Your task to perform on an android device: uninstall "Viber Messenger" Image 0: 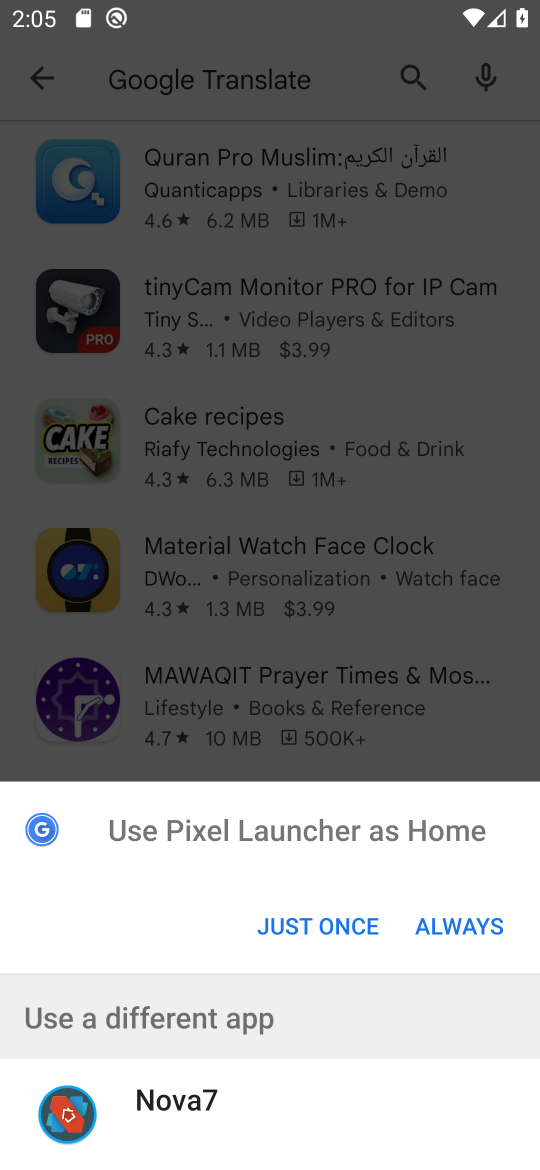
Step 0: click (306, 923)
Your task to perform on an android device: uninstall "Viber Messenger" Image 1: 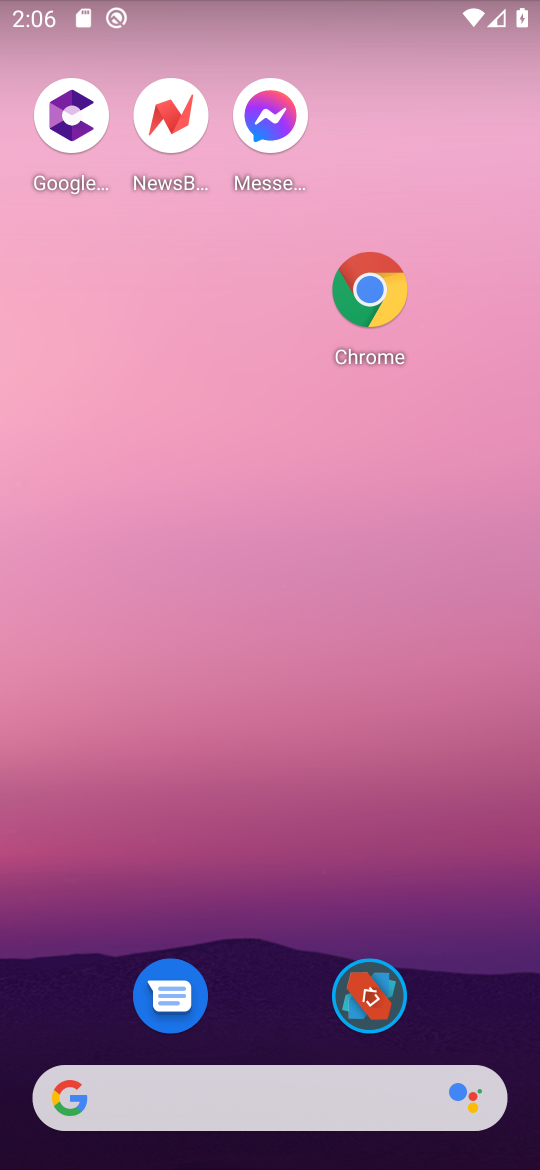
Step 1: drag from (361, 1032) to (376, 250)
Your task to perform on an android device: uninstall "Viber Messenger" Image 2: 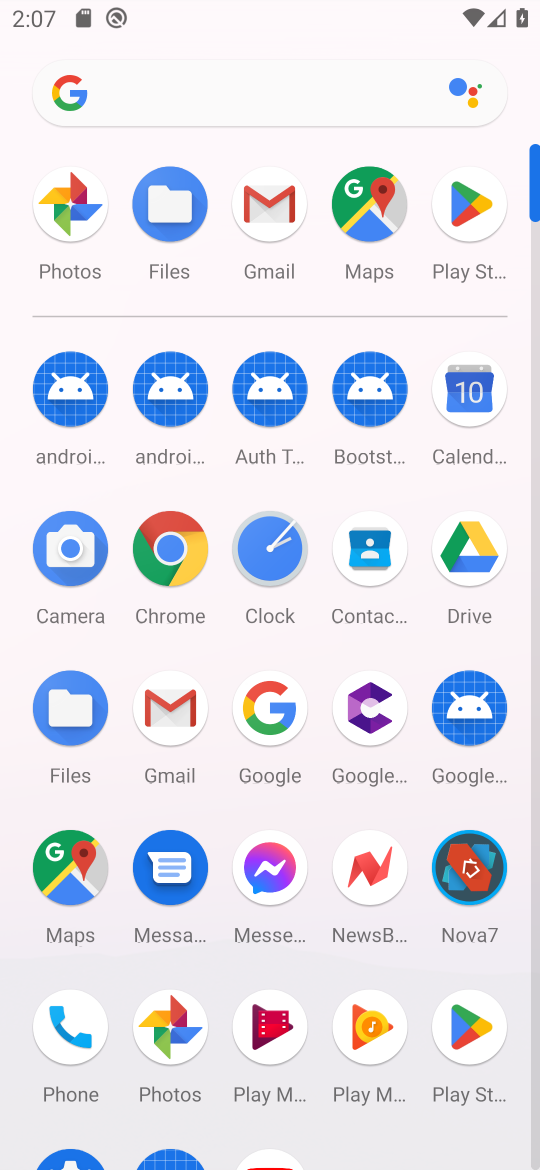
Step 2: click (478, 203)
Your task to perform on an android device: uninstall "Viber Messenger" Image 3: 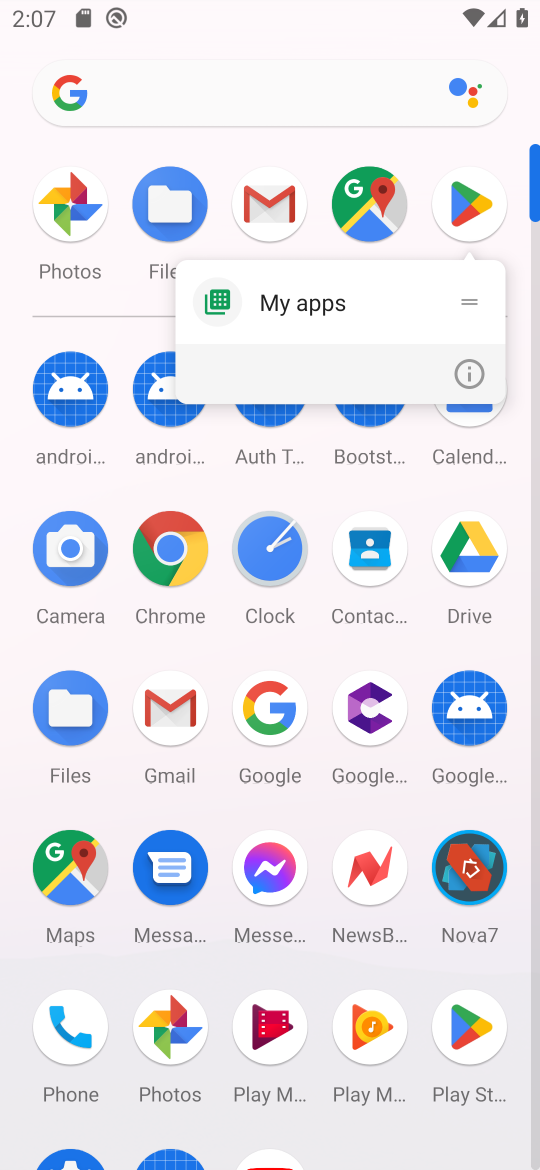
Step 3: click (478, 203)
Your task to perform on an android device: uninstall "Viber Messenger" Image 4: 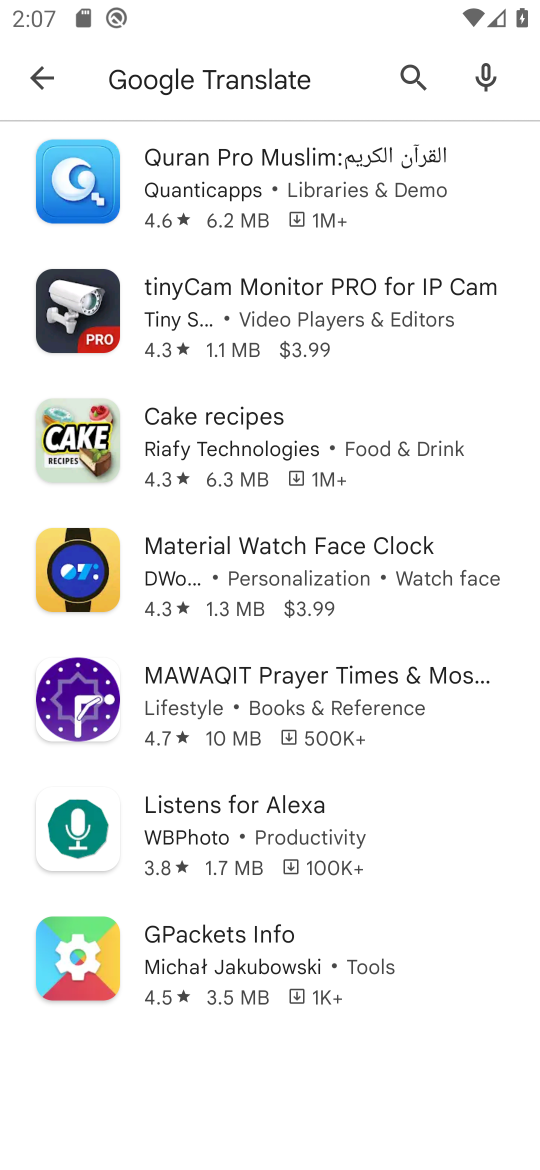
Step 4: press back button
Your task to perform on an android device: uninstall "Viber Messenger" Image 5: 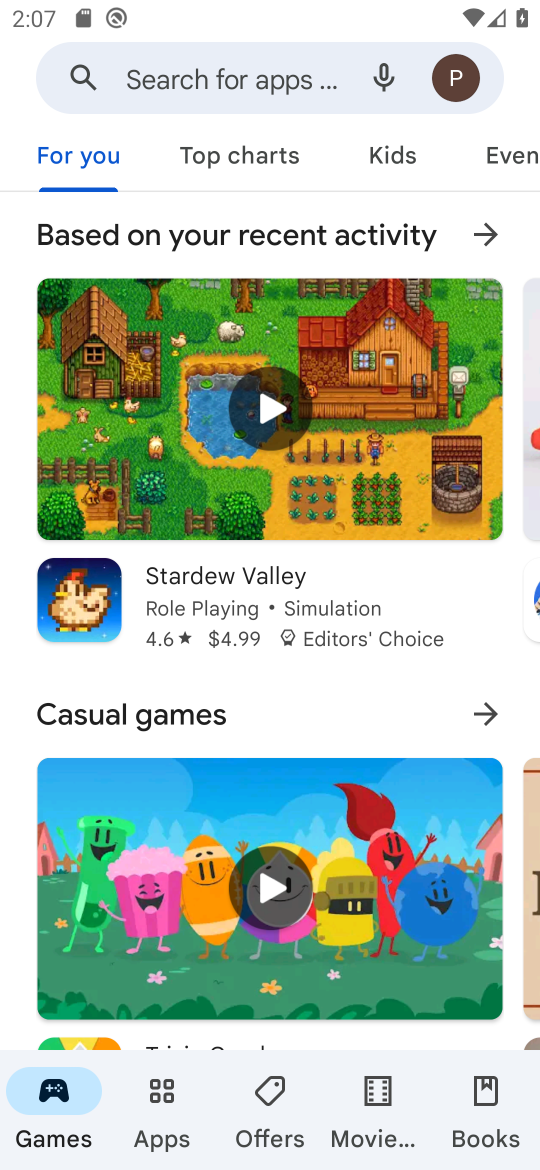
Step 5: click (211, 71)
Your task to perform on an android device: uninstall "Viber Messenger" Image 6: 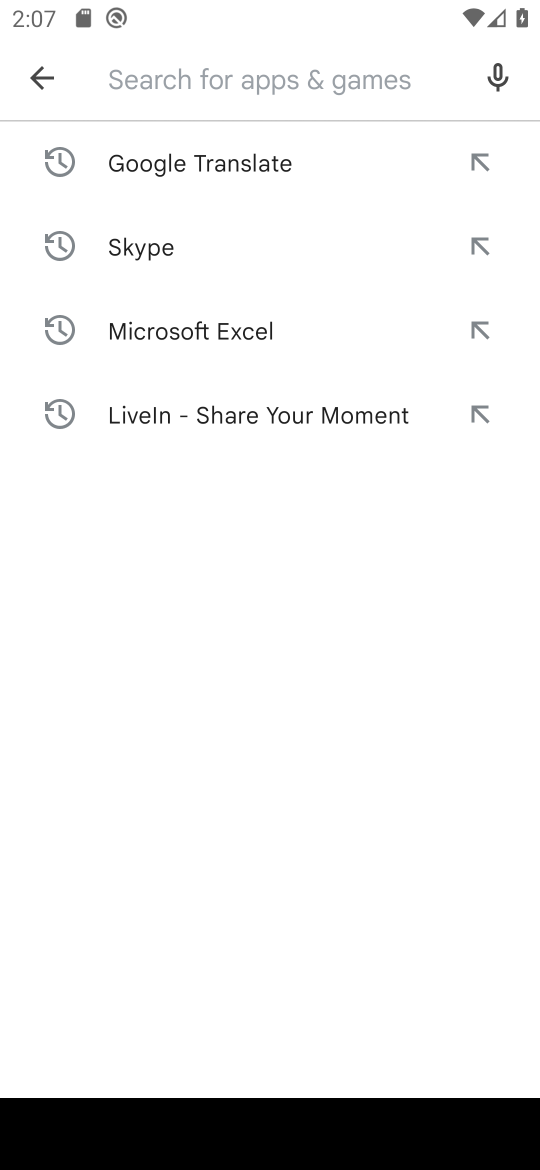
Step 6: type "Viber Messenger"
Your task to perform on an android device: uninstall "Viber Messenger" Image 7: 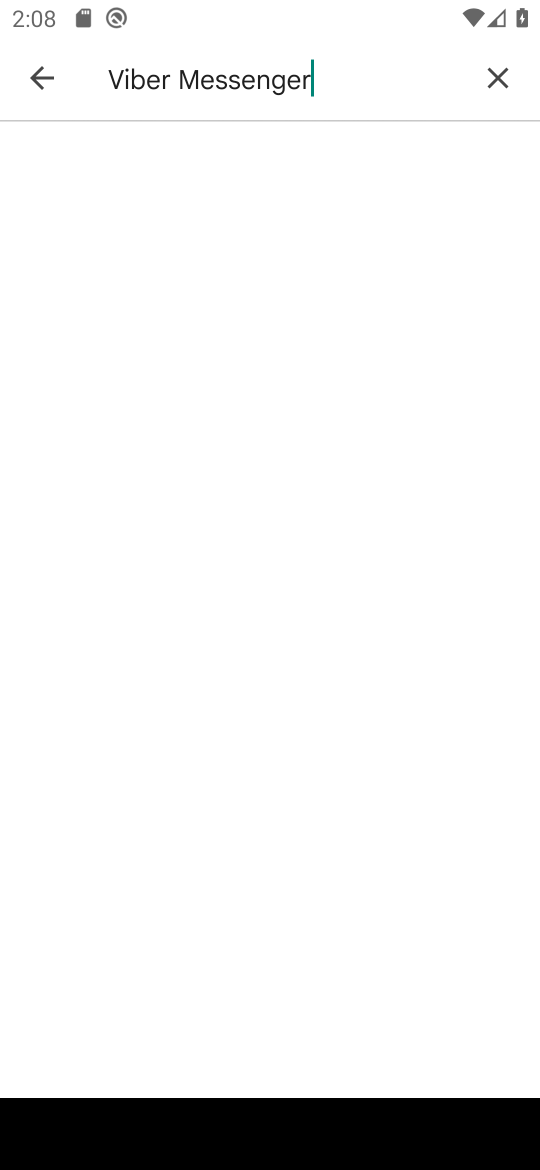
Step 7: press enter
Your task to perform on an android device: uninstall "Viber Messenger" Image 8: 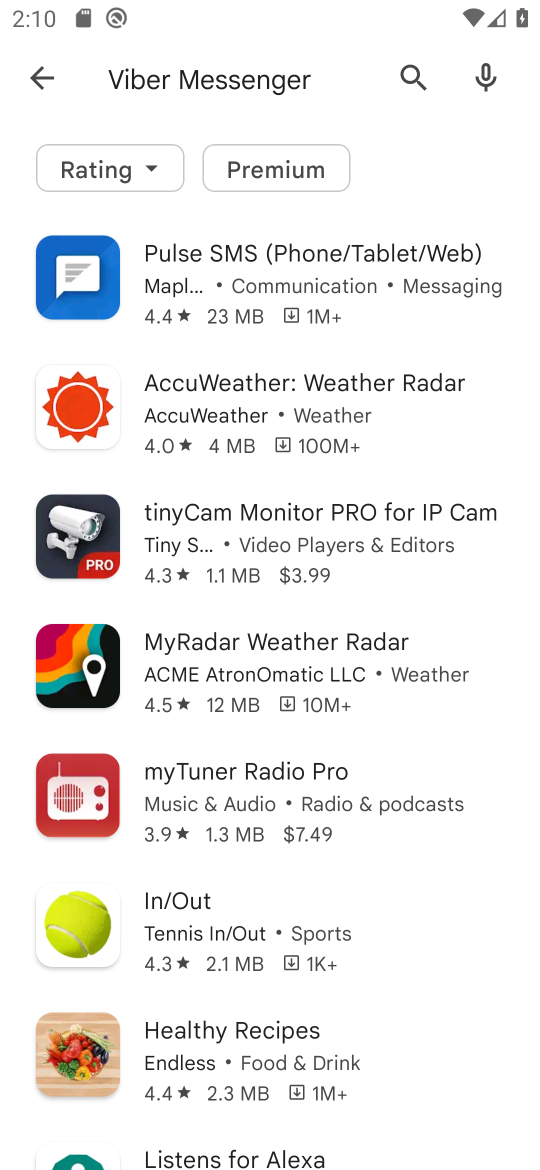
Step 8: task complete